Your task to perform on an android device: make emails show in primary in the gmail app Image 0: 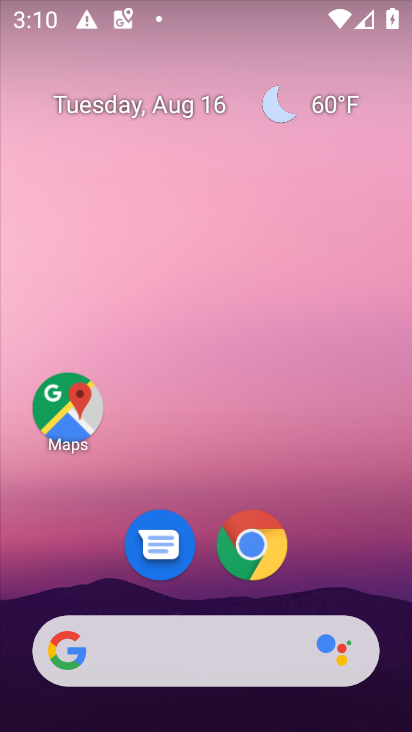
Step 0: drag from (208, 499) to (237, 294)
Your task to perform on an android device: make emails show in primary in the gmail app Image 1: 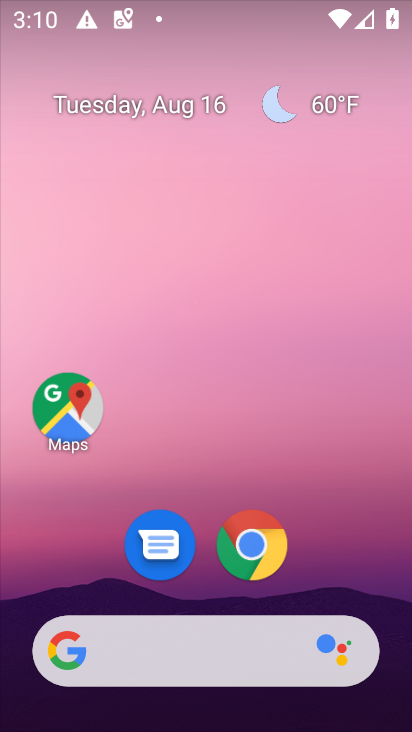
Step 1: drag from (193, 548) to (193, 224)
Your task to perform on an android device: make emails show in primary in the gmail app Image 2: 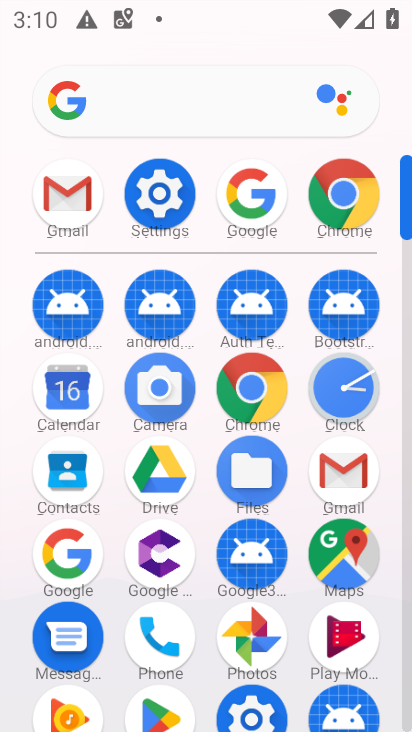
Step 2: click (55, 201)
Your task to perform on an android device: make emails show in primary in the gmail app Image 3: 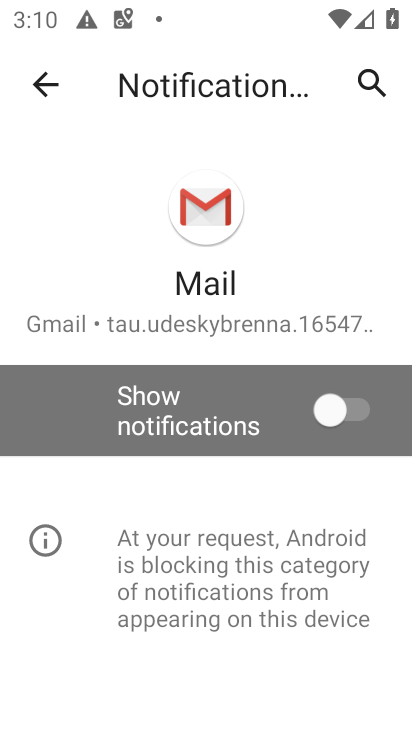
Step 3: click (34, 74)
Your task to perform on an android device: make emails show in primary in the gmail app Image 4: 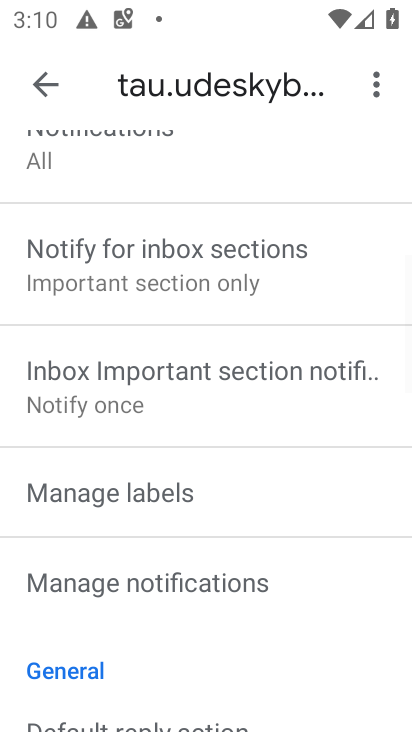
Step 4: drag from (146, 212) to (127, 580)
Your task to perform on an android device: make emails show in primary in the gmail app Image 5: 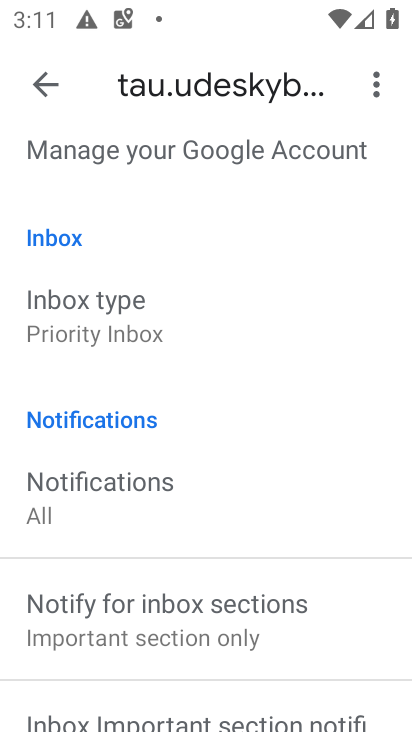
Step 5: click (107, 328)
Your task to perform on an android device: make emails show in primary in the gmail app Image 6: 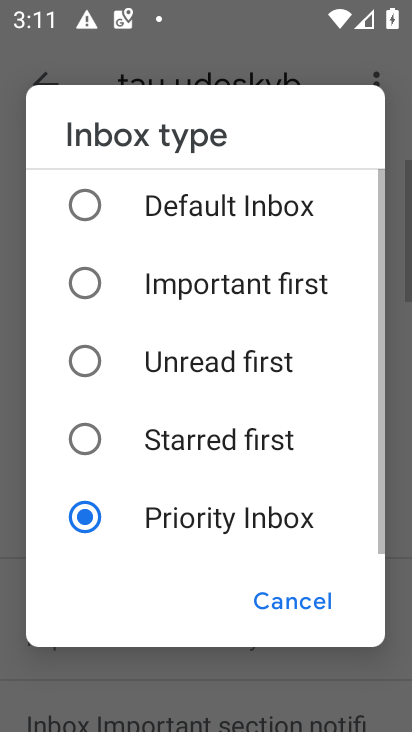
Step 6: click (158, 202)
Your task to perform on an android device: make emails show in primary in the gmail app Image 7: 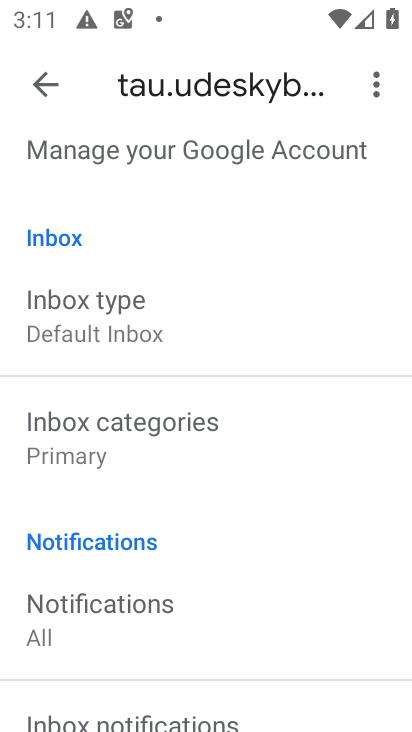
Step 7: task complete